Your task to perform on an android device: Open sound settings Image 0: 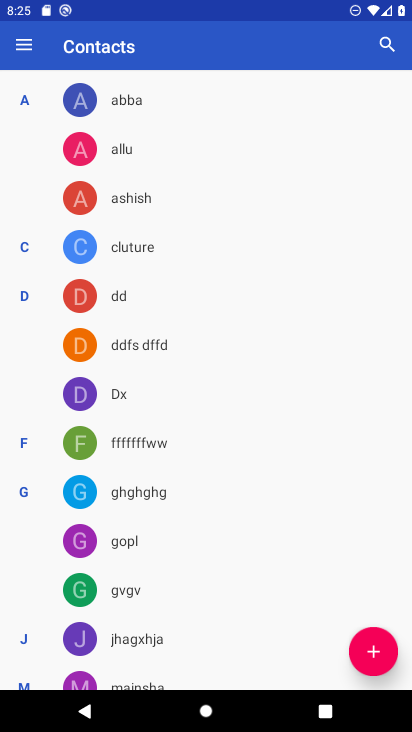
Step 0: press home button
Your task to perform on an android device: Open sound settings Image 1: 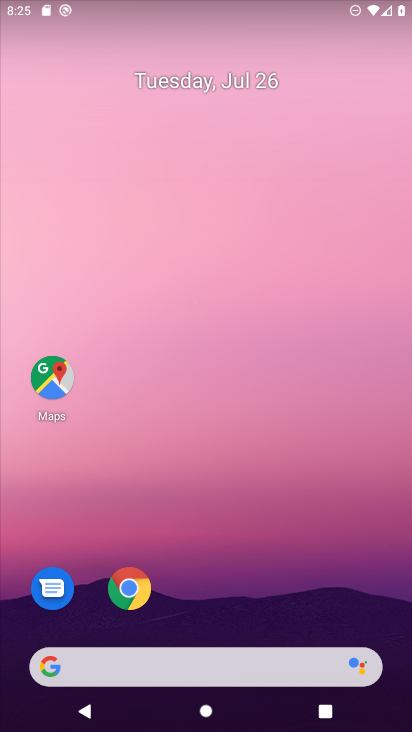
Step 1: drag from (247, 621) to (285, 1)
Your task to perform on an android device: Open sound settings Image 2: 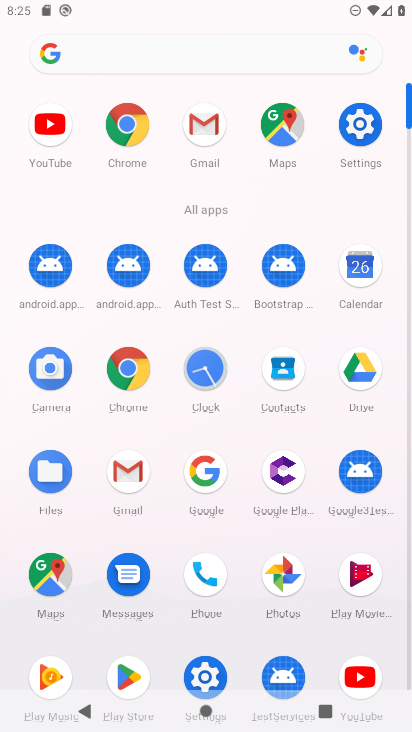
Step 2: click (359, 116)
Your task to perform on an android device: Open sound settings Image 3: 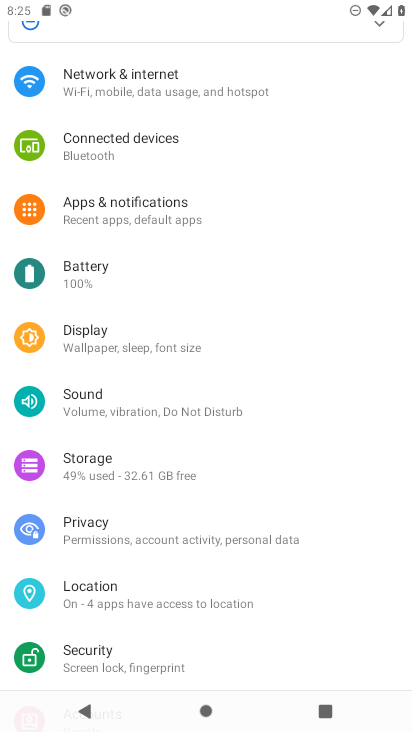
Step 3: click (93, 398)
Your task to perform on an android device: Open sound settings Image 4: 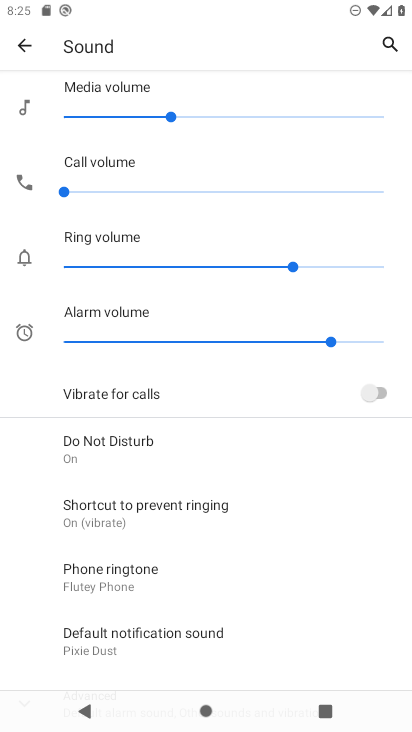
Step 4: task complete